Your task to perform on an android device: Open settings on Google Maps Image 0: 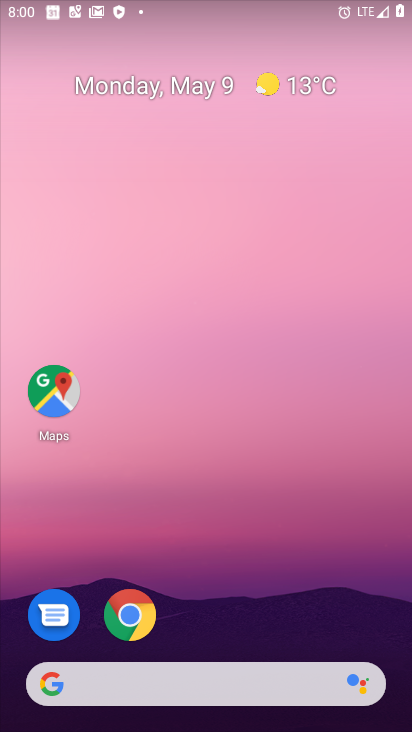
Step 0: click (43, 409)
Your task to perform on an android device: Open settings on Google Maps Image 1: 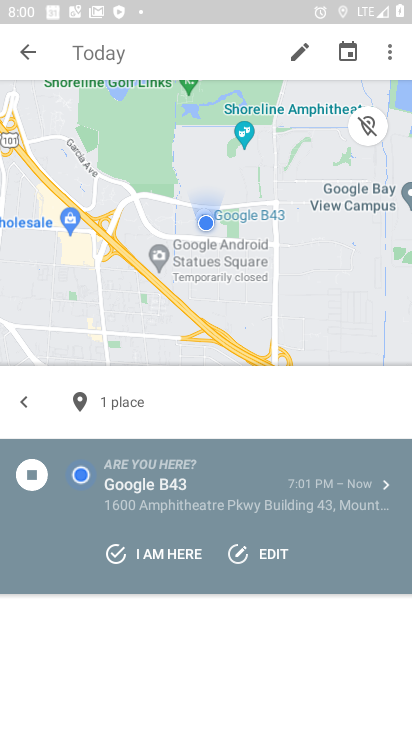
Step 1: click (29, 46)
Your task to perform on an android device: Open settings on Google Maps Image 2: 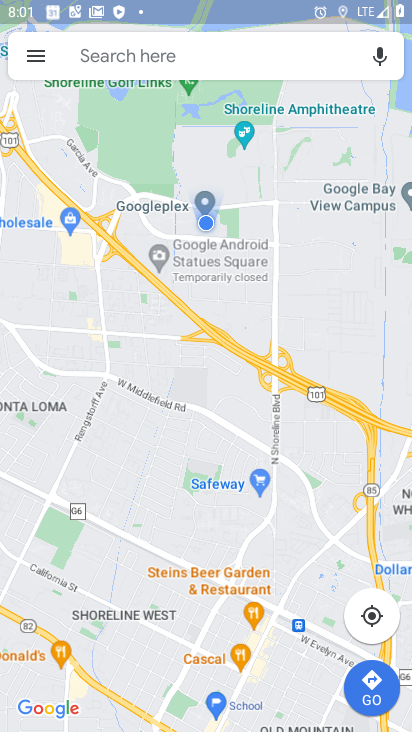
Step 2: click (54, 63)
Your task to perform on an android device: Open settings on Google Maps Image 3: 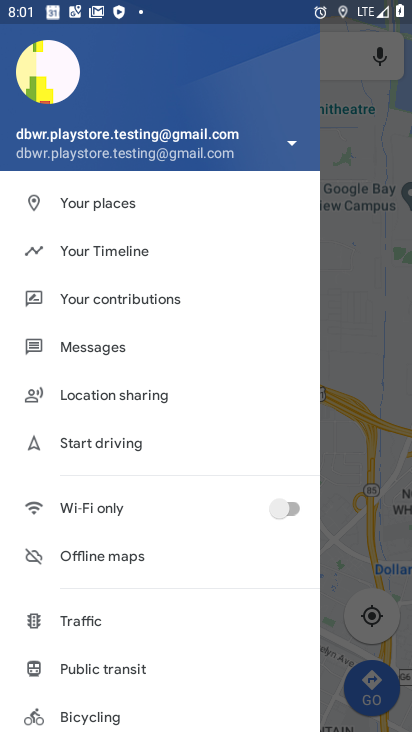
Step 3: drag from (113, 660) to (203, 395)
Your task to perform on an android device: Open settings on Google Maps Image 4: 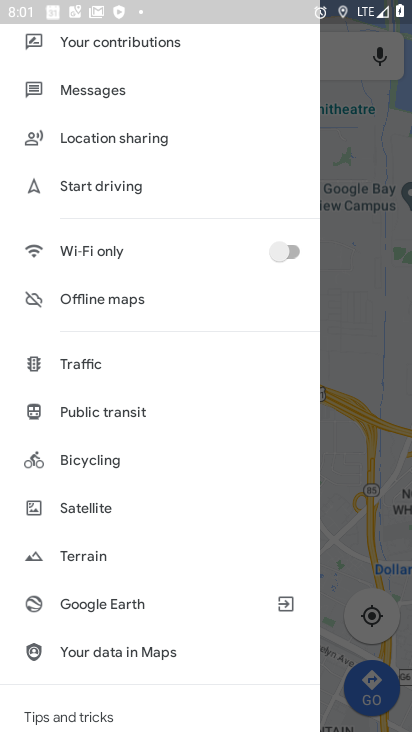
Step 4: drag from (138, 629) to (202, 296)
Your task to perform on an android device: Open settings on Google Maps Image 5: 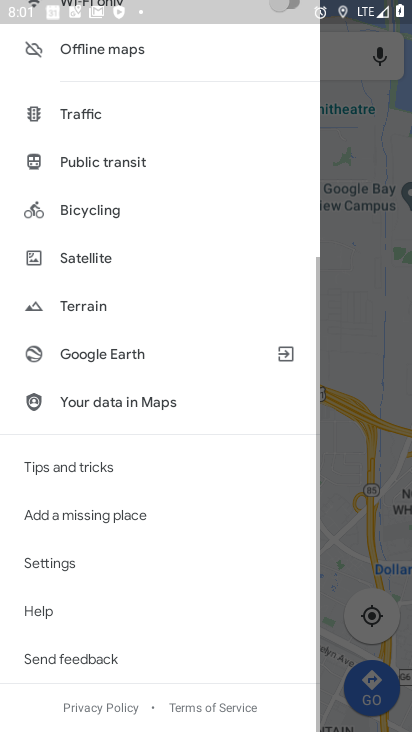
Step 5: click (77, 571)
Your task to perform on an android device: Open settings on Google Maps Image 6: 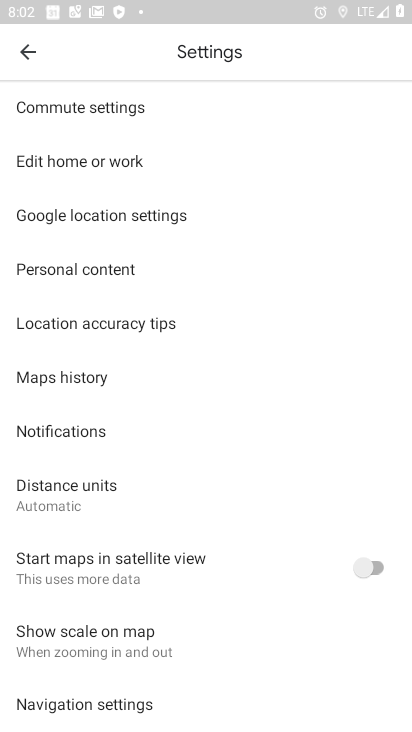
Step 6: task complete